Your task to perform on an android device: turn notification dots off Image 0: 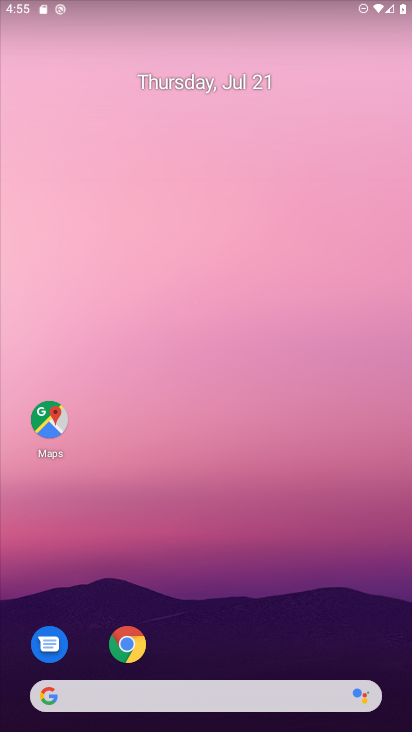
Step 0: drag from (208, 211) to (218, 143)
Your task to perform on an android device: turn notification dots off Image 1: 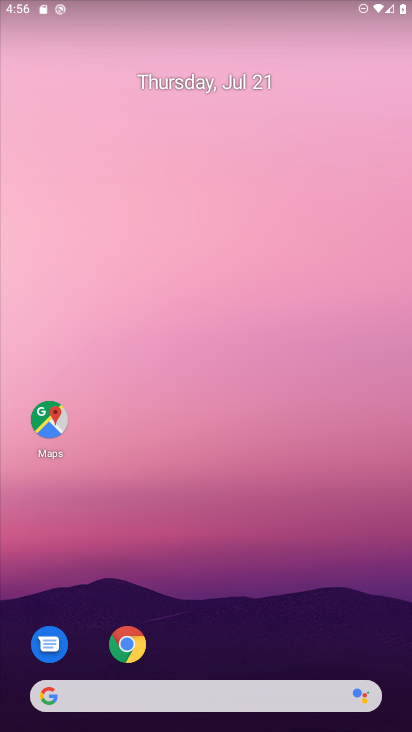
Step 1: drag from (168, 571) to (171, 150)
Your task to perform on an android device: turn notification dots off Image 2: 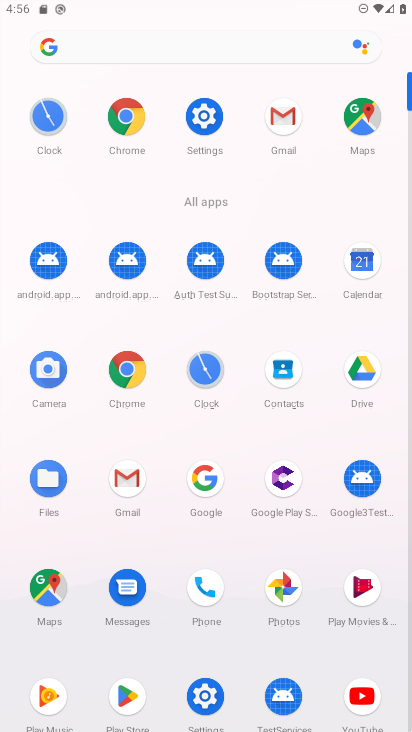
Step 2: click (213, 118)
Your task to perform on an android device: turn notification dots off Image 3: 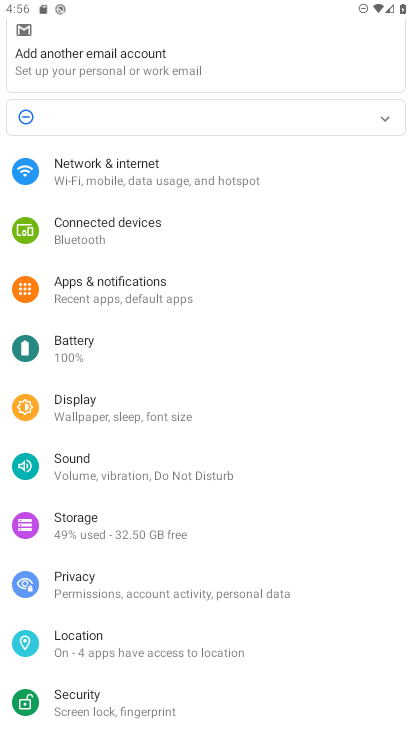
Step 3: click (110, 296)
Your task to perform on an android device: turn notification dots off Image 4: 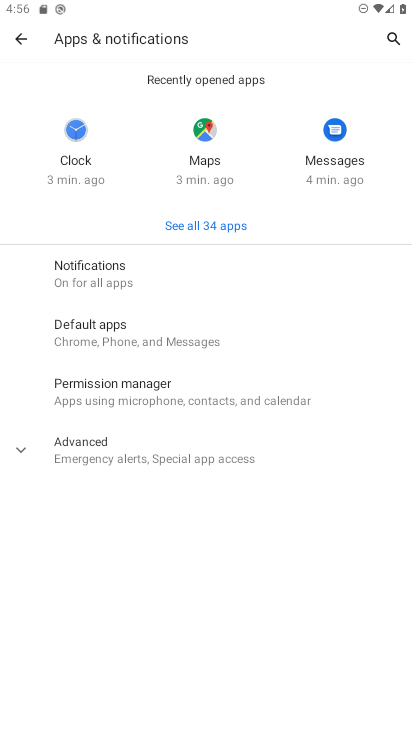
Step 4: click (110, 277)
Your task to perform on an android device: turn notification dots off Image 5: 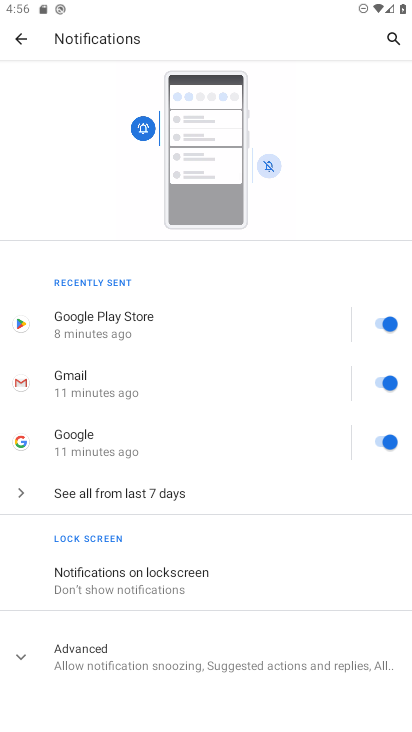
Step 5: click (144, 660)
Your task to perform on an android device: turn notification dots off Image 6: 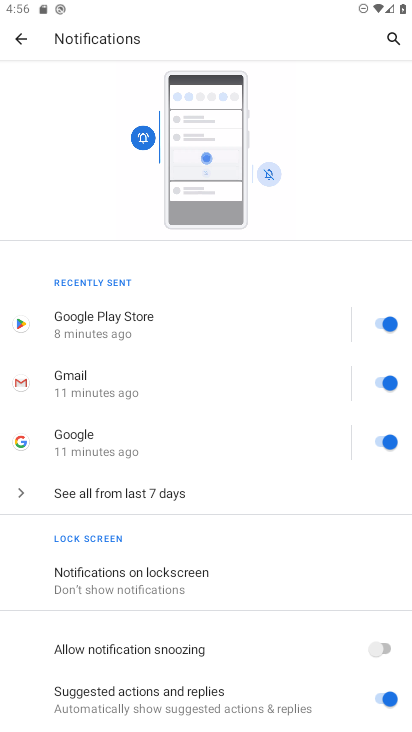
Step 6: task complete